Your task to perform on an android device: turn vacation reply on in the gmail app Image 0: 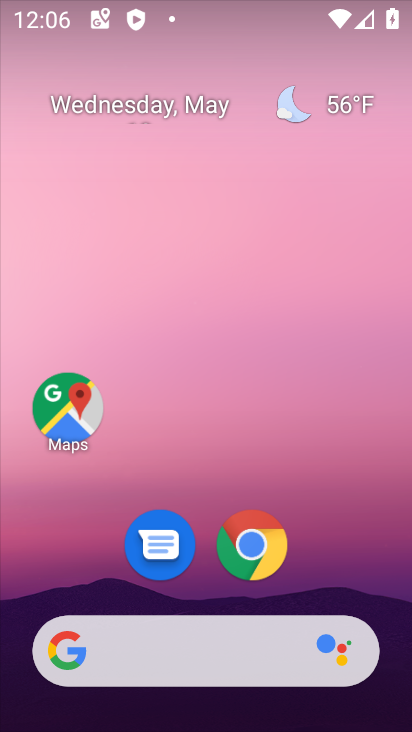
Step 0: drag from (338, 645) to (354, 284)
Your task to perform on an android device: turn vacation reply on in the gmail app Image 1: 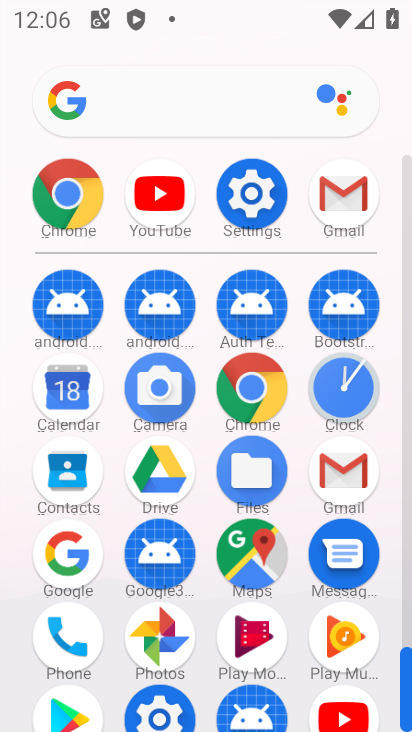
Step 1: click (350, 499)
Your task to perform on an android device: turn vacation reply on in the gmail app Image 2: 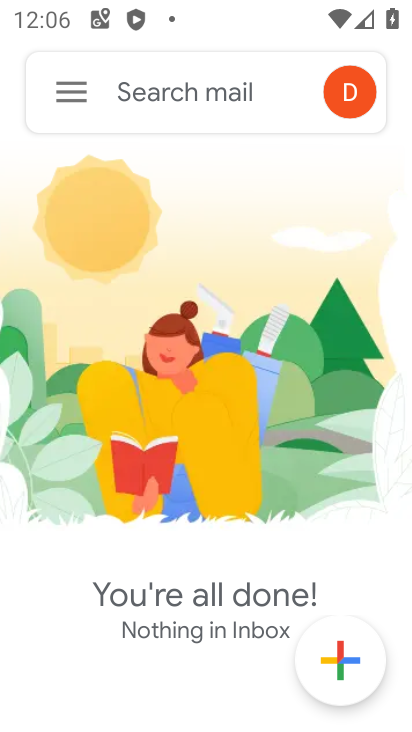
Step 2: click (78, 97)
Your task to perform on an android device: turn vacation reply on in the gmail app Image 3: 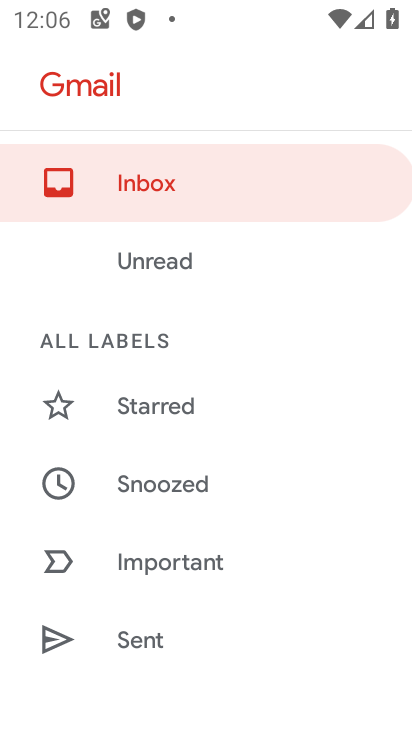
Step 3: drag from (211, 515) to (217, 389)
Your task to perform on an android device: turn vacation reply on in the gmail app Image 4: 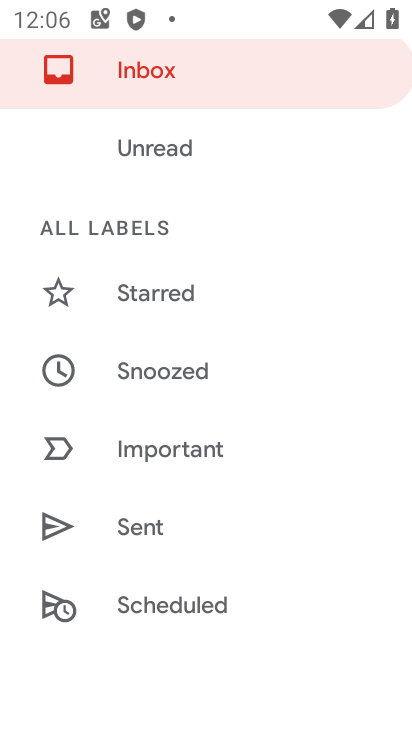
Step 4: drag from (226, 603) to (252, 267)
Your task to perform on an android device: turn vacation reply on in the gmail app Image 5: 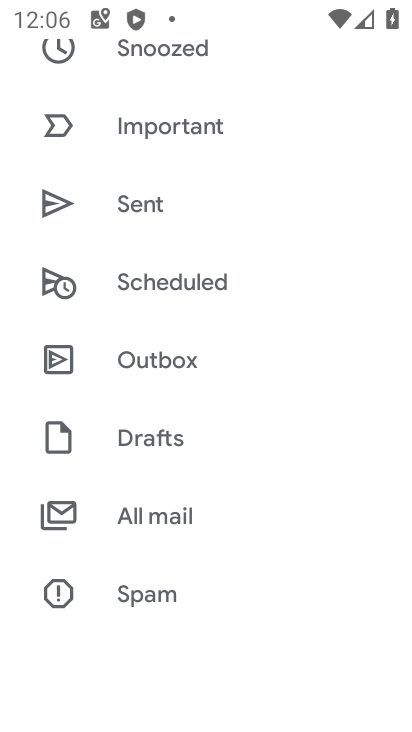
Step 5: drag from (219, 559) to (238, 384)
Your task to perform on an android device: turn vacation reply on in the gmail app Image 6: 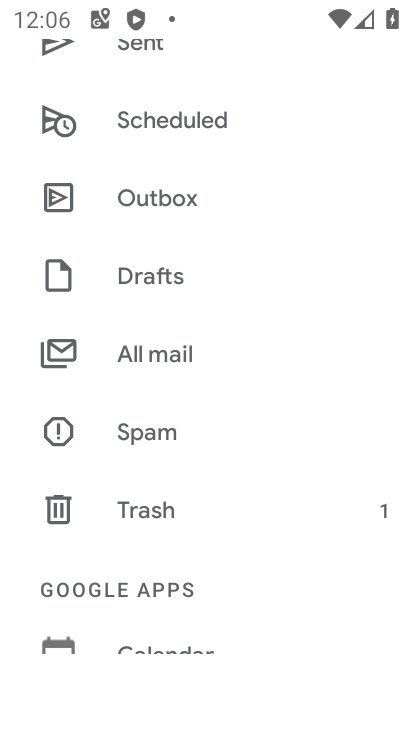
Step 6: click (210, 591)
Your task to perform on an android device: turn vacation reply on in the gmail app Image 7: 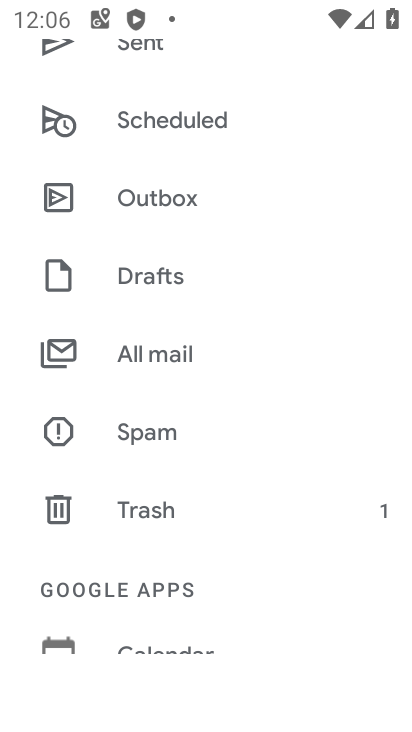
Step 7: drag from (210, 591) to (263, 250)
Your task to perform on an android device: turn vacation reply on in the gmail app Image 8: 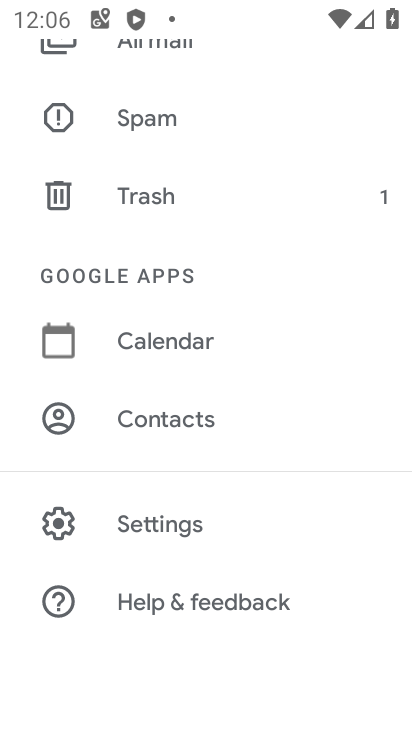
Step 8: click (196, 519)
Your task to perform on an android device: turn vacation reply on in the gmail app Image 9: 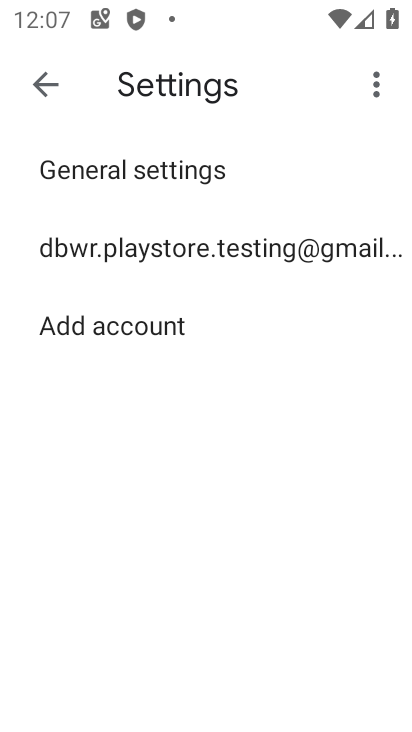
Step 9: click (199, 252)
Your task to perform on an android device: turn vacation reply on in the gmail app Image 10: 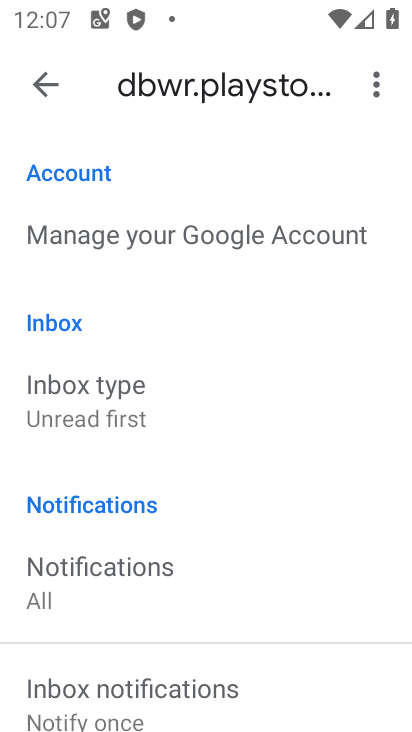
Step 10: task complete